Your task to perform on an android device: toggle notification dots Image 0: 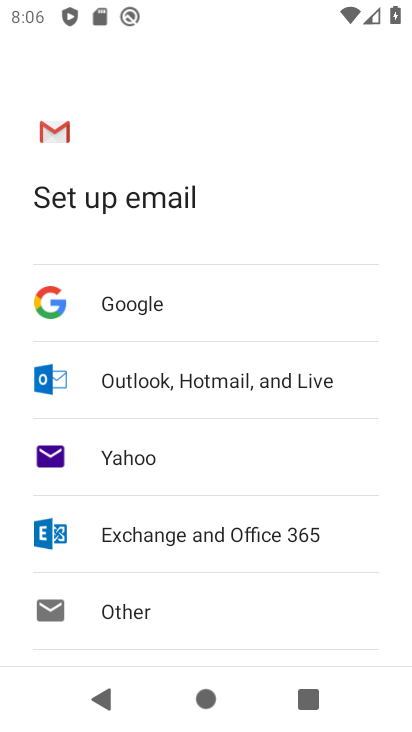
Step 0: press home button
Your task to perform on an android device: toggle notification dots Image 1: 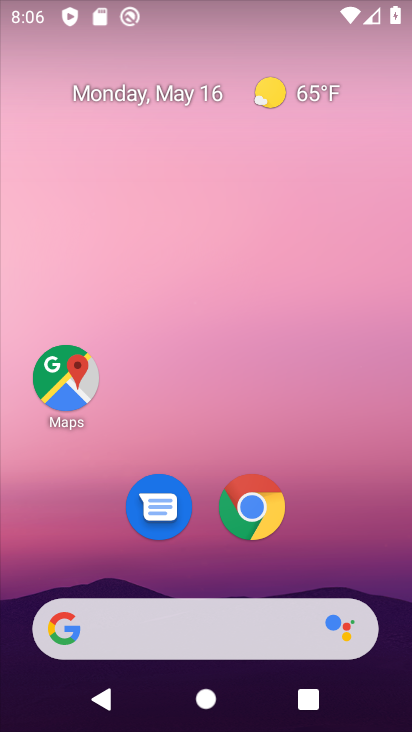
Step 1: drag from (205, 575) to (145, 7)
Your task to perform on an android device: toggle notification dots Image 2: 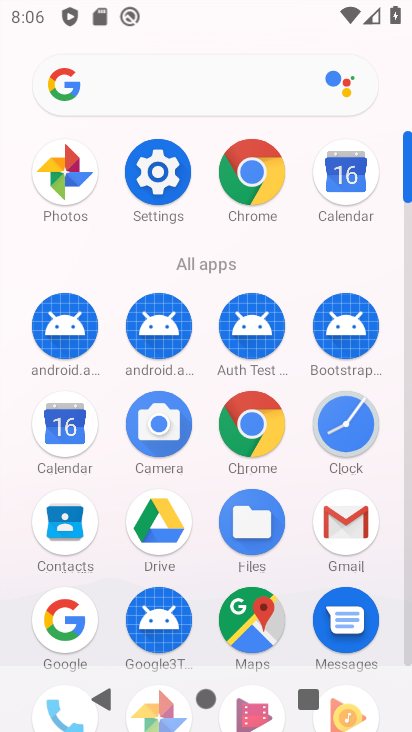
Step 2: click (155, 165)
Your task to perform on an android device: toggle notification dots Image 3: 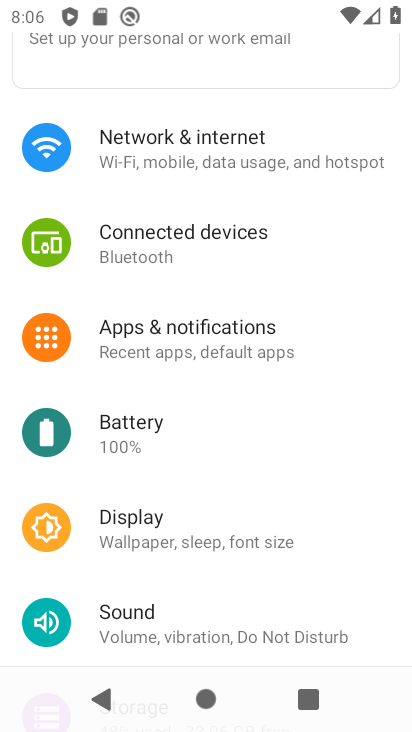
Step 3: click (186, 336)
Your task to perform on an android device: toggle notification dots Image 4: 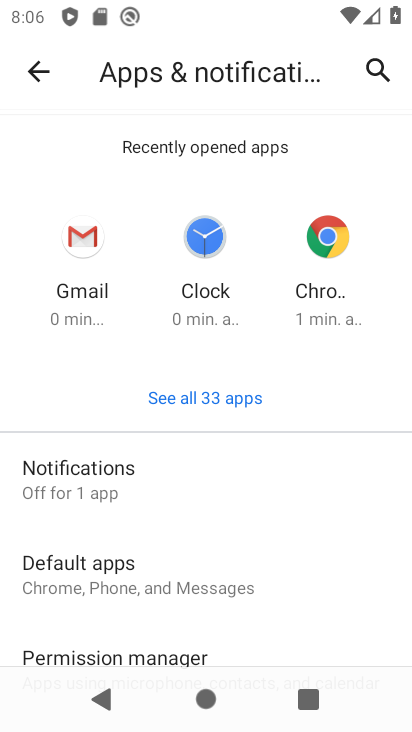
Step 4: drag from (171, 571) to (91, 22)
Your task to perform on an android device: toggle notification dots Image 5: 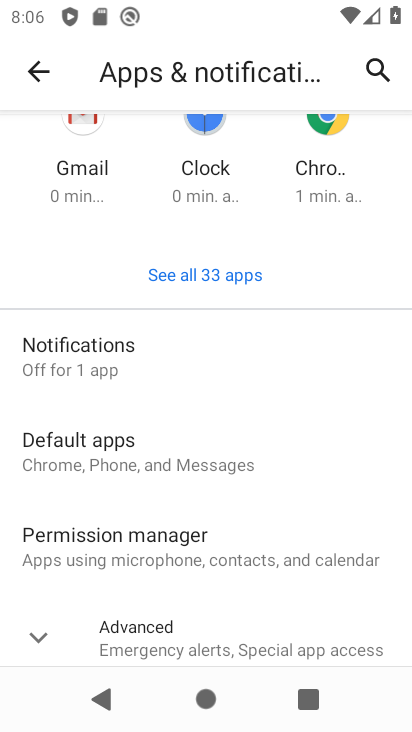
Step 5: click (92, 341)
Your task to perform on an android device: toggle notification dots Image 6: 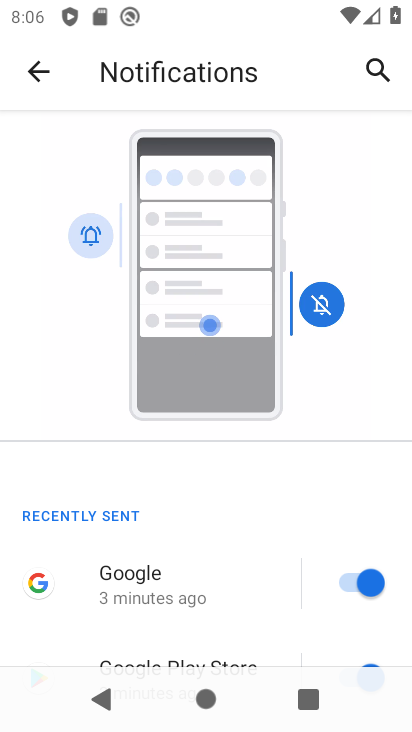
Step 6: drag from (124, 516) to (151, 28)
Your task to perform on an android device: toggle notification dots Image 7: 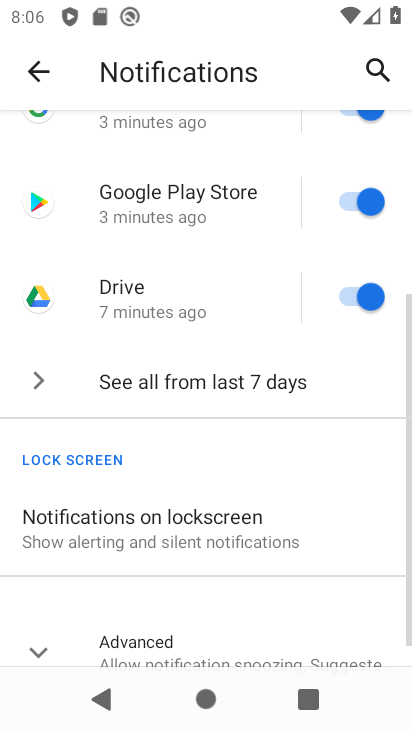
Step 7: click (200, 637)
Your task to perform on an android device: toggle notification dots Image 8: 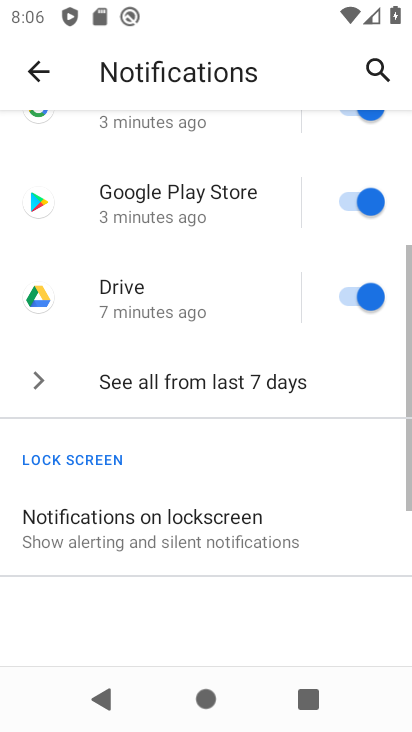
Step 8: drag from (201, 637) to (103, 36)
Your task to perform on an android device: toggle notification dots Image 9: 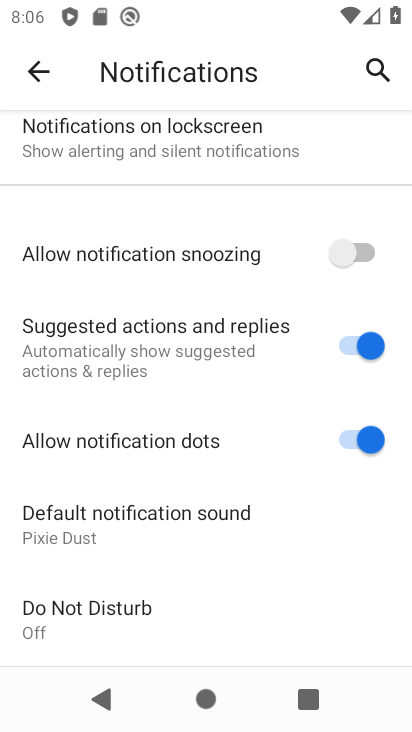
Step 9: click (370, 436)
Your task to perform on an android device: toggle notification dots Image 10: 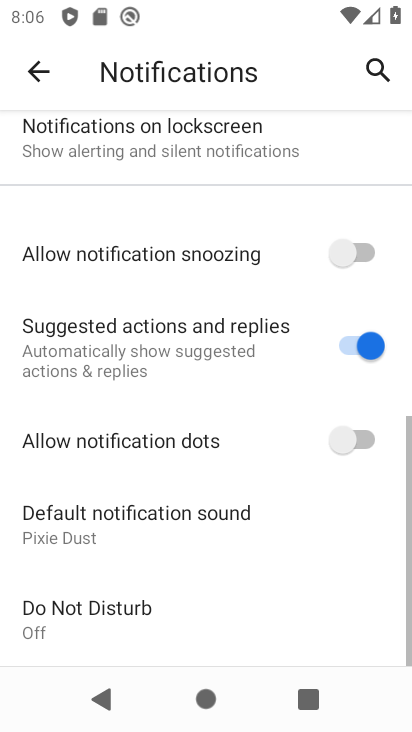
Step 10: task complete